Your task to perform on an android device: turn off notifications in google photos Image 0: 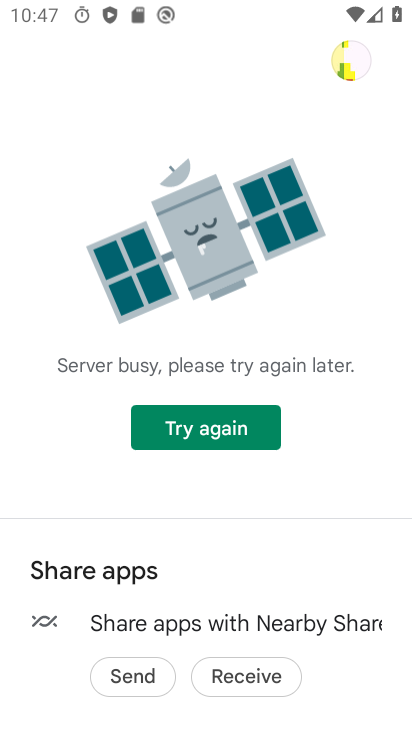
Step 0: press back button
Your task to perform on an android device: turn off notifications in google photos Image 1: 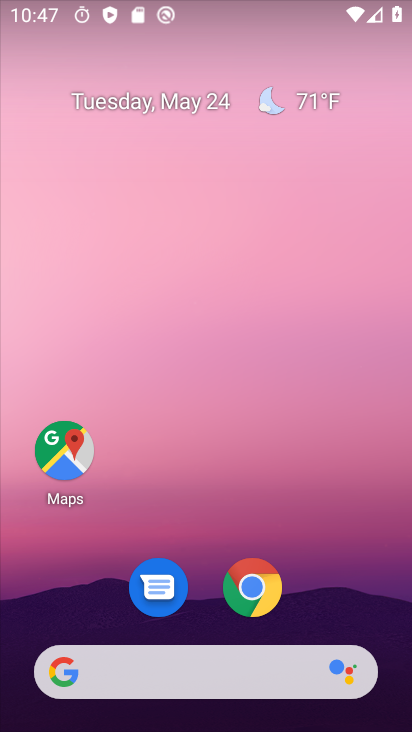
Step 1: drag from (231, 675) to (198, 53)
Your task to perform on an android device: turn off notifications in google photos Image 2: 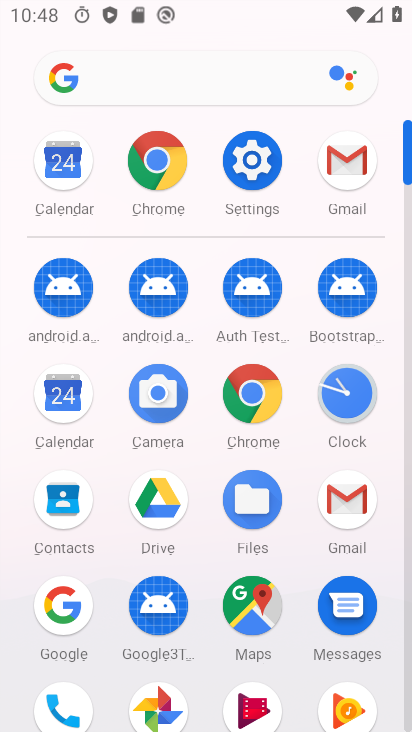
Step 2: drag from (213, 601) to (219, 242)
Your task to perform on an android device: turn off notifications in google photos Image 3: 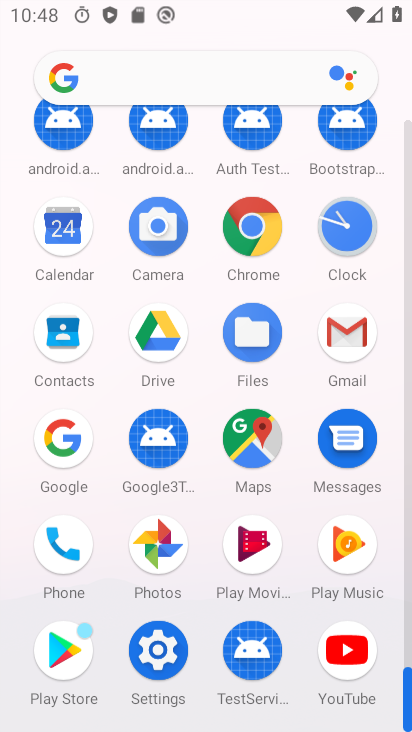
Step 3: drag from (170, 566) to (167, 269)
Your task to perform on an android device: turn off notifications in google photos Image 4: 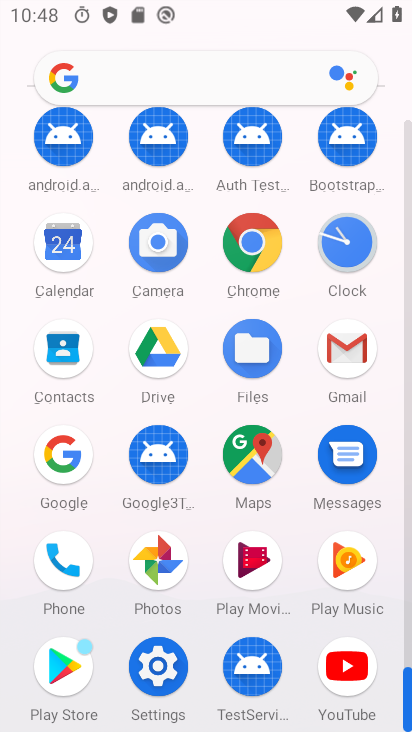
Step 4: click (156, 554)
Your task to perform on an android device: turn off notifications in google photos Image 5: 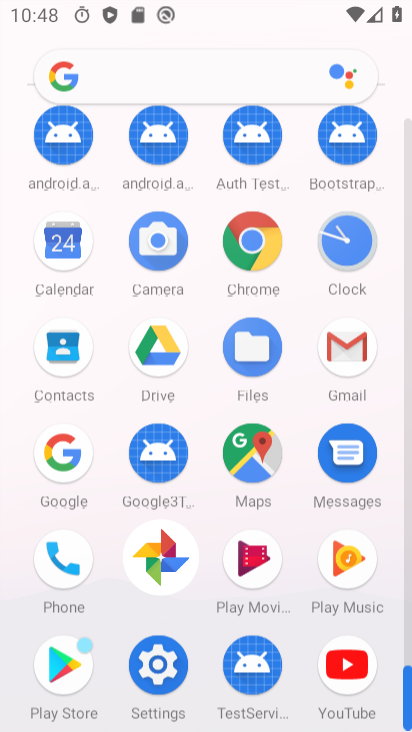
Step 5: click (156, 554)
Your task to perform on an android device: turn off notifications in google photos Image 6: 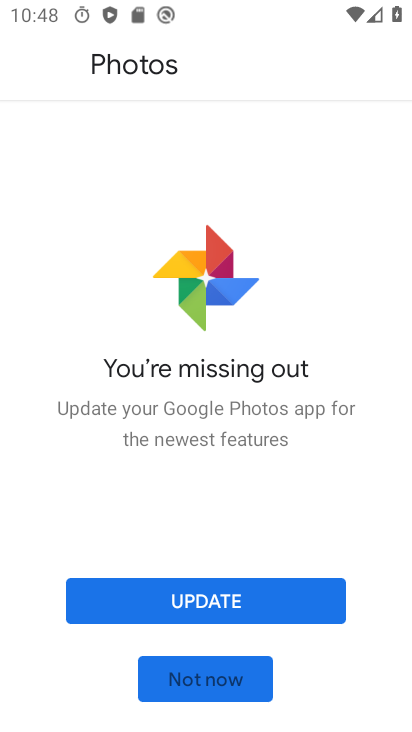
Step 6: click (202, 671)
Your task to perform on an android device: turn off notifications in google photos Image 7: 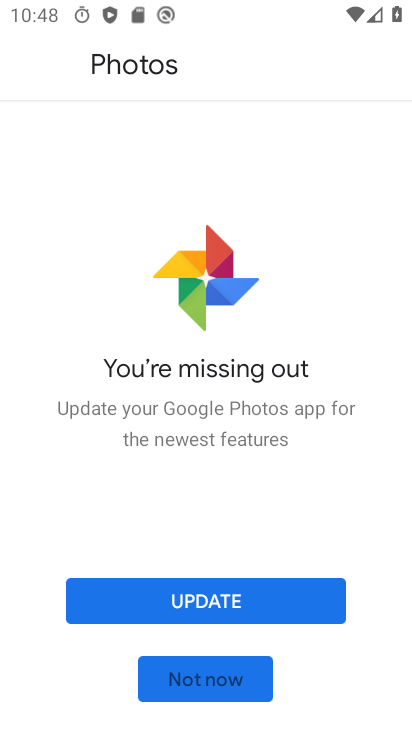
Step 7: click (202, 671)
Your task to perform on an android device: turn off notifications in google photos Image 8: 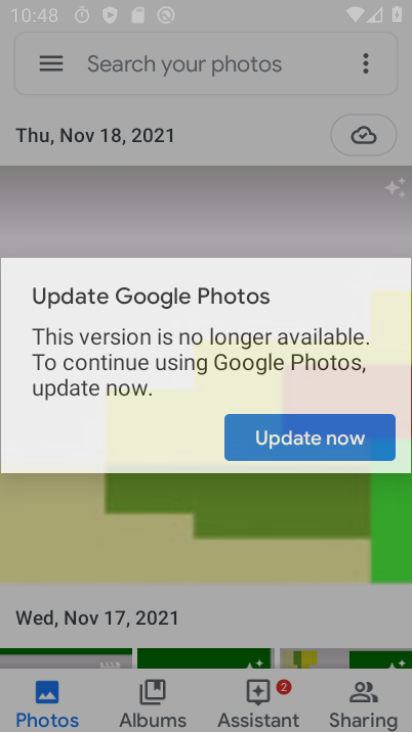
Step 8: click (202, 671)
Your task to perform on an android device: turn off notifications in google photos Image 9: 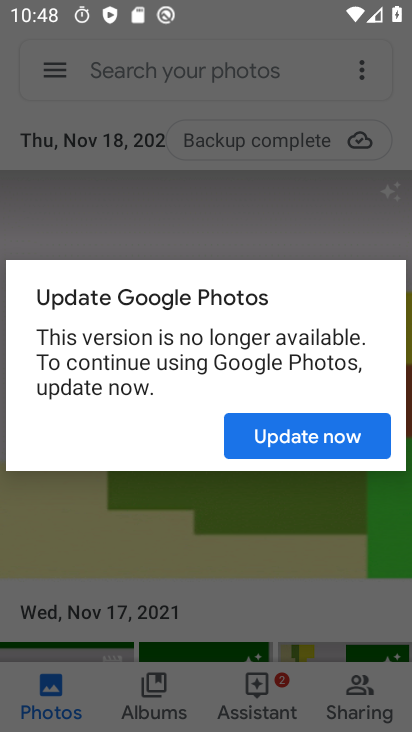
Step 9: click (315, 436)
Your task to perform on an android device: turn off notifications in google photos Image 10: 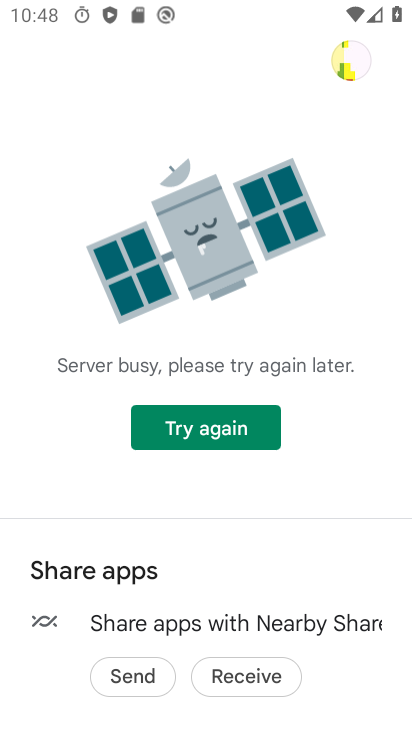
Step 10: task complete